Your task to perform on an android device: check google app version Image 0: 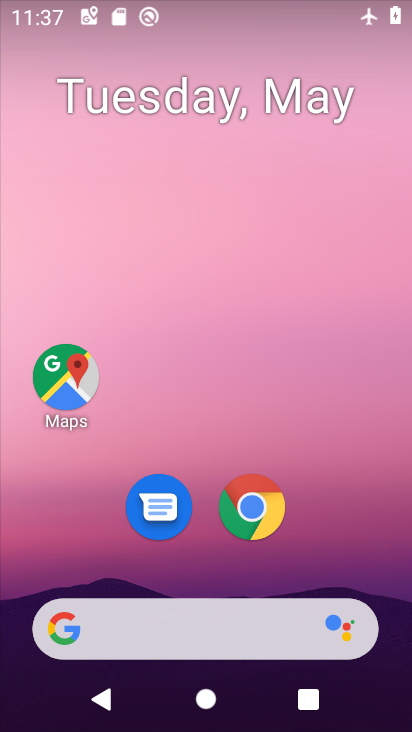
Step 0: drag from (266, 706) to (256, 225)
Your task to perform on an android device: check google app version Image 1: 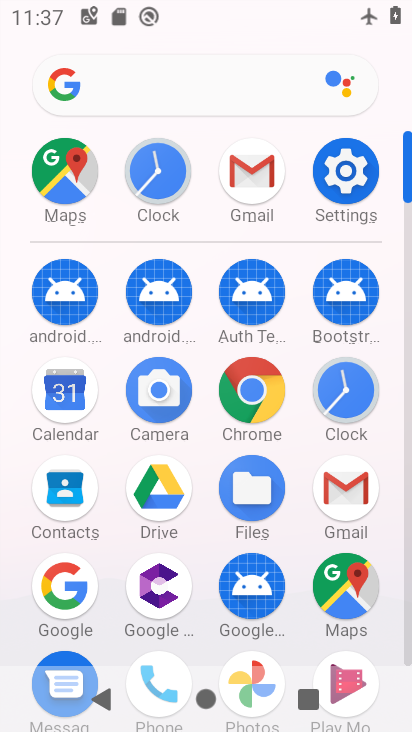
Step 1: click (70, 582)
Your task to perform on an android device: check google app version Image 2: 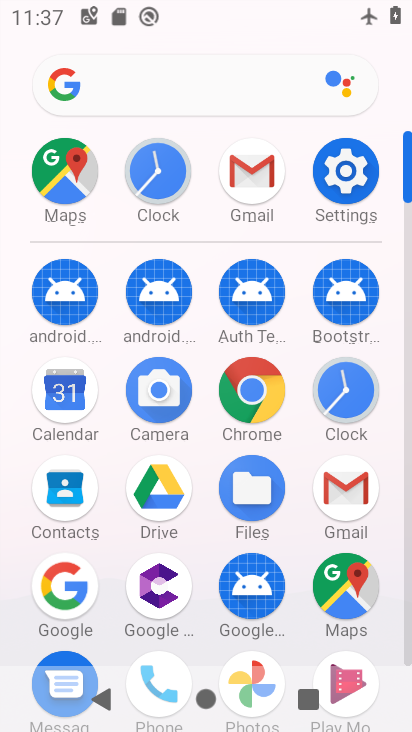
Step 2: click (70, 582)
Your task to perform on an android device: check google app version Image 3: 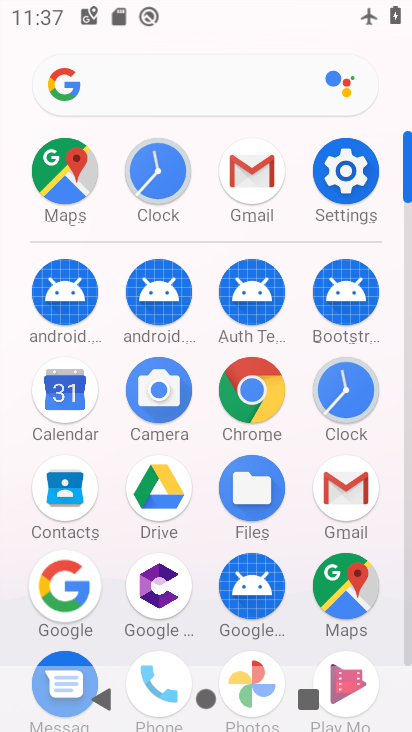
Step 3: click (70, 582)
Your task to perform on an android device: check google app version Image 4: 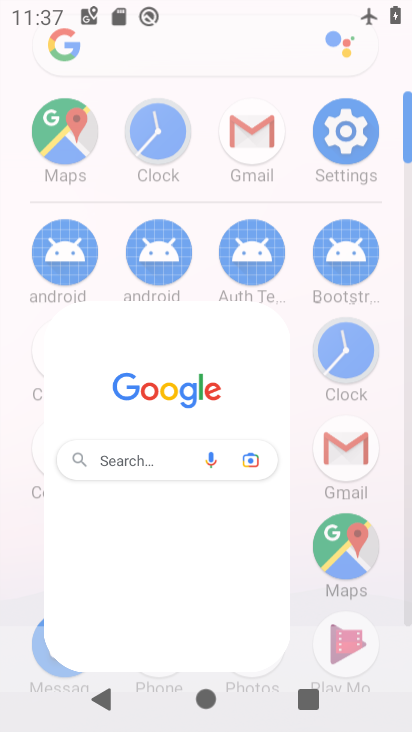
Step 4: click (69, 581)
Your task to perform on an android device: check google app version Image 5: 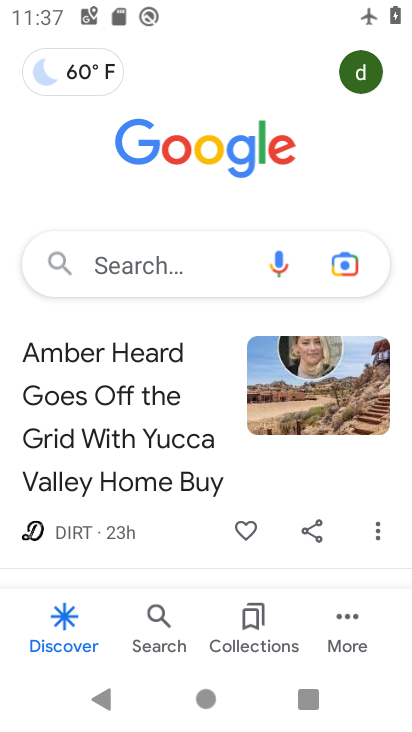
Step 5: click (142, 498)
Your task to perform on an android device: check google app version Image 6: 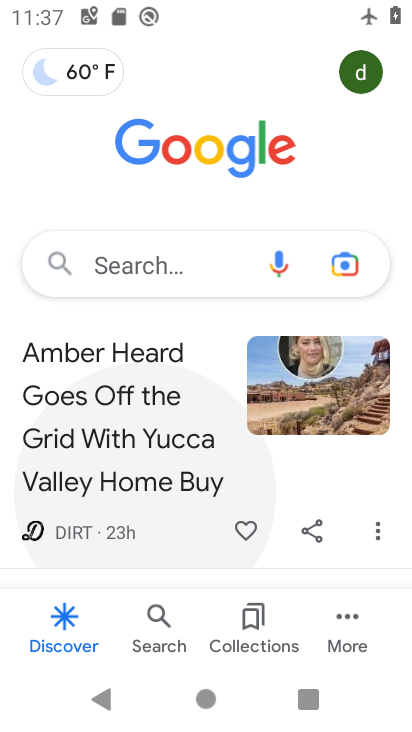
Step 6: click (143, 498)
Your task to perform on an android device: check google app version Image 7: 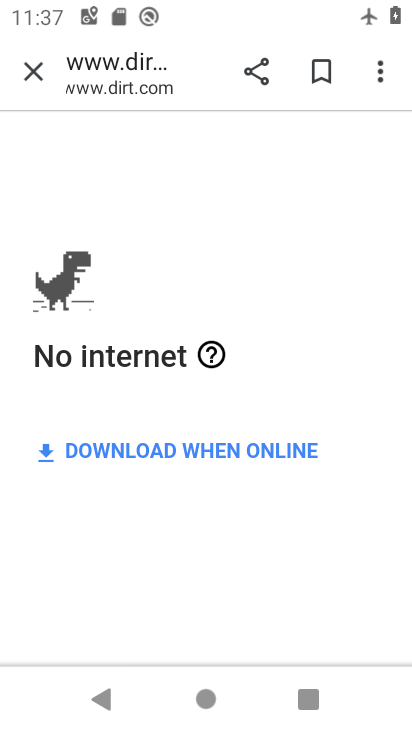
Step 7: click (37, 78)
Your task to perform on an android device: check google app version Image 8: 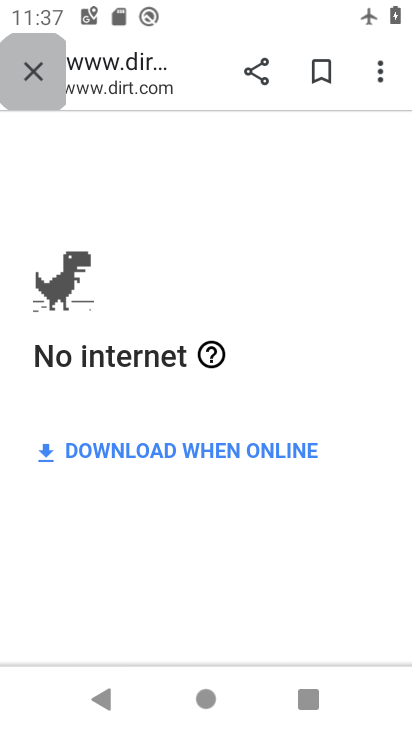
Step 8: click (41, 78)
Your task to perform on an android device: check google app version Image 9: 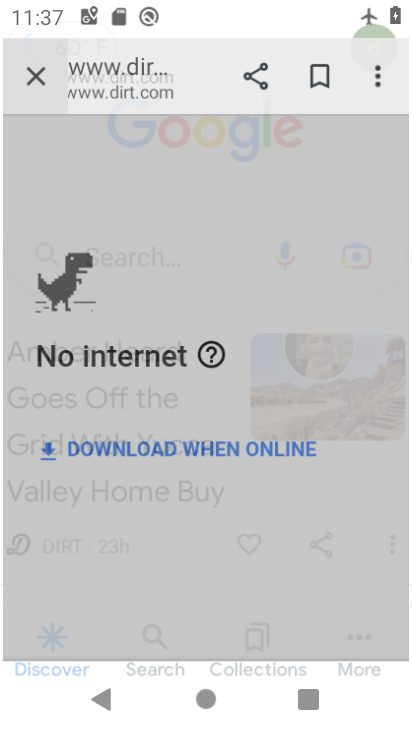
Step 9: click (41, 78)
Your task to perform on an android device: check google app version Image 10: 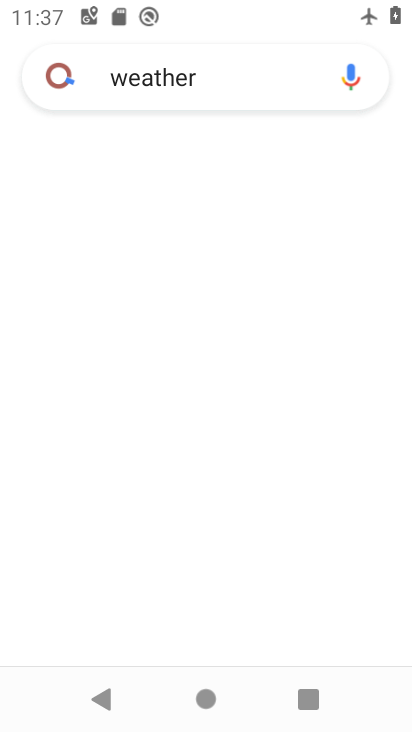
Step 10: click (335, 630)
Your task to perform on an android device: check google app version Image 11: 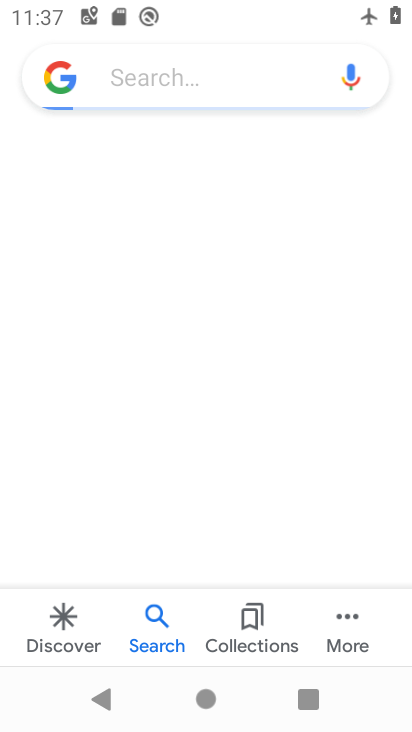
Step 11: click (335, 630)
Your task to perform on an android device: check google app version Image 12: 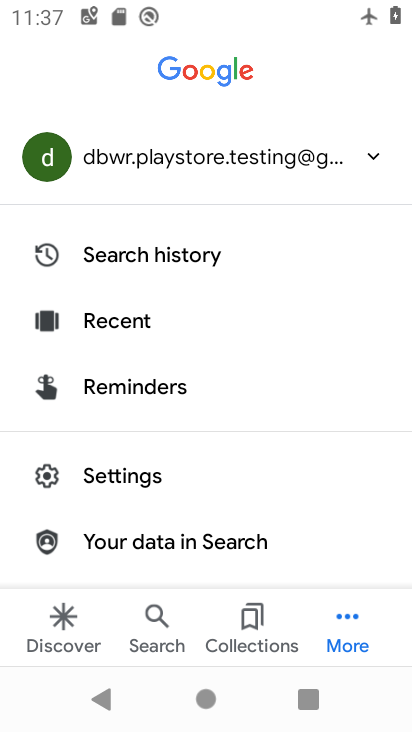
Step 12: click (352, 643)
Your task to perform on an android device: check google app version Image 13: 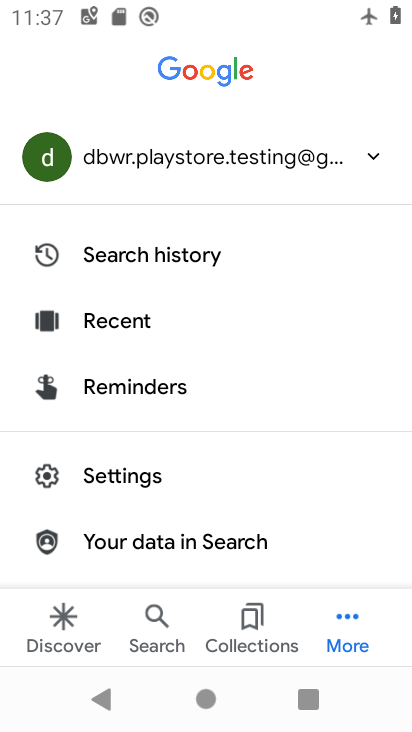
Step 13: click (352, 642)
Your task to perform on an android device: check google app version Image 14: 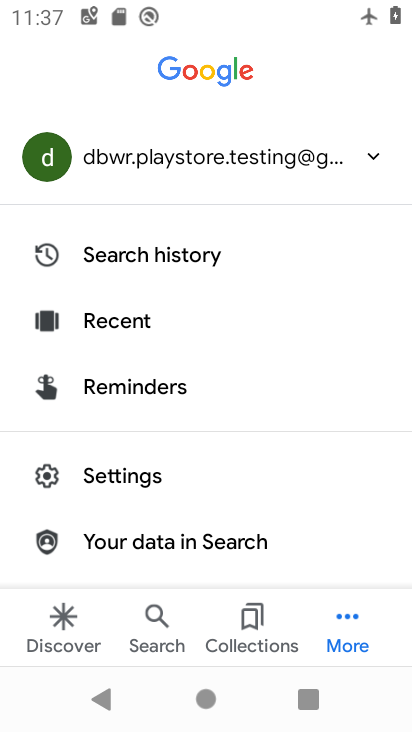
Step 14: click (352, 642)
Your task to perform on an android device: check google app version Image 15: 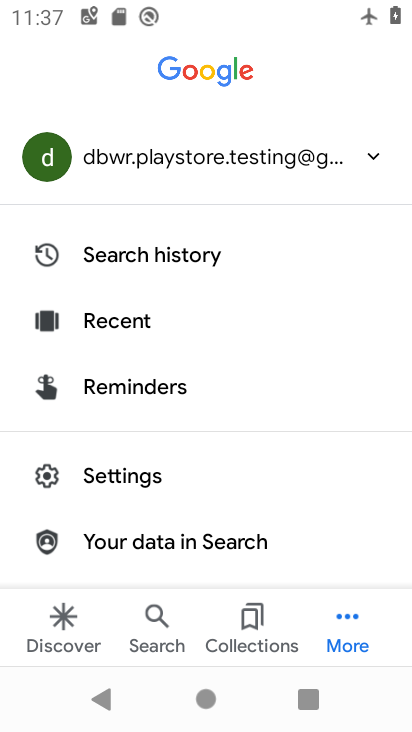
Step 15: click (353, 639)
Your task to perform on an android device: check google app version Image 16: 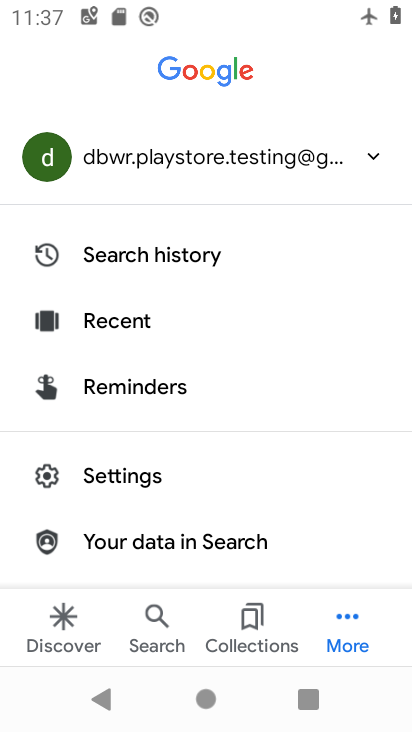
Step 16: click (105, 468)
Your task to perform on an android device: check google app version Image 17: 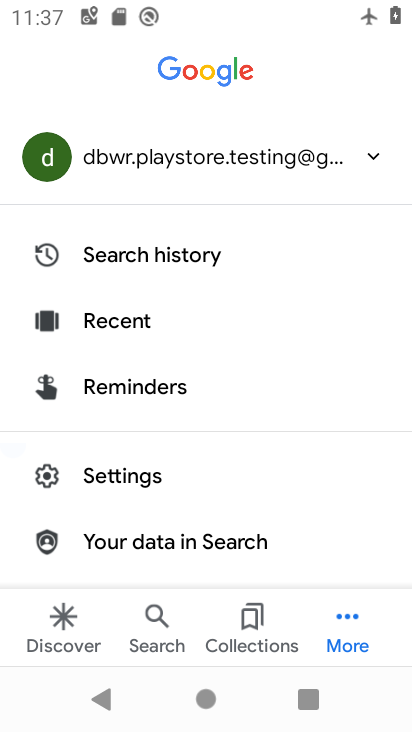
Step 17: click (105, 468)
Your task to perform on an android device: check google app version Image 18: 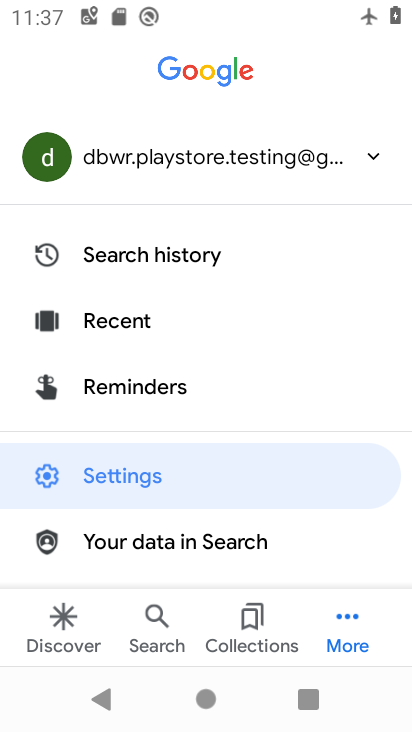
Step 18: click (105, 468)
Your task to perform on an android device: check google app version Image 19: 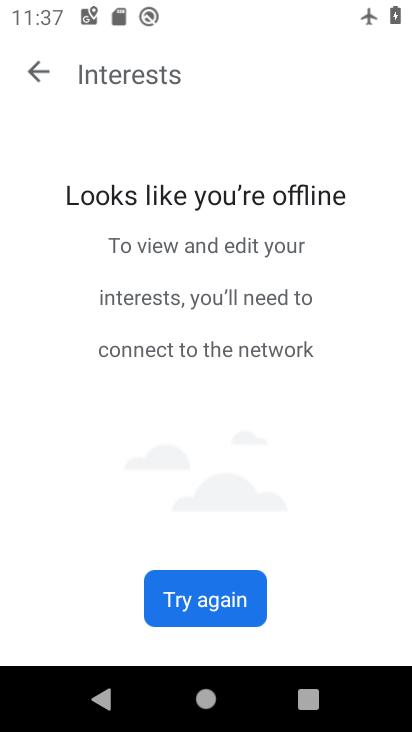
Step 19: click (23, 67)
Your task to perform on an android device: check google app version Image 20: 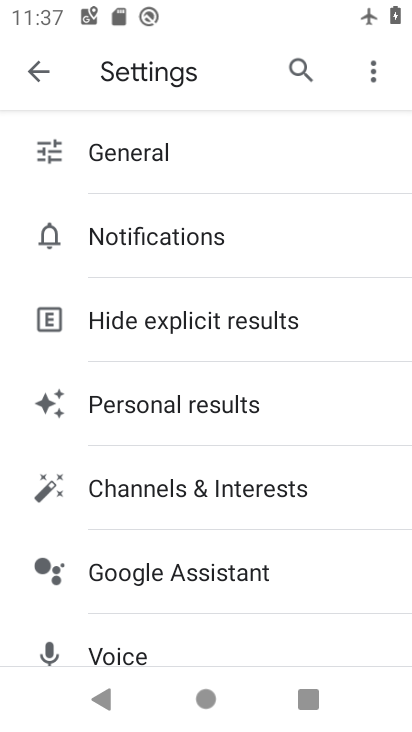
Step 20: drag from (132, 506) to (132, 229)
Your task to perform on an android device: check google app version Image 21: 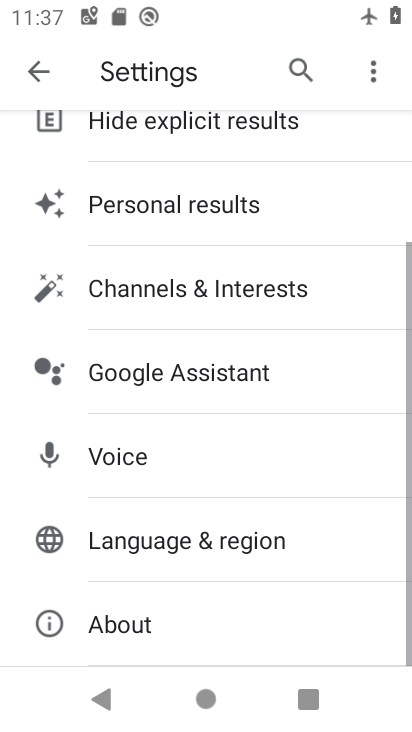
Step 21: drag from (132, 468) to (168, 125)
Your task to perform on an android device: check google app version Image 22: 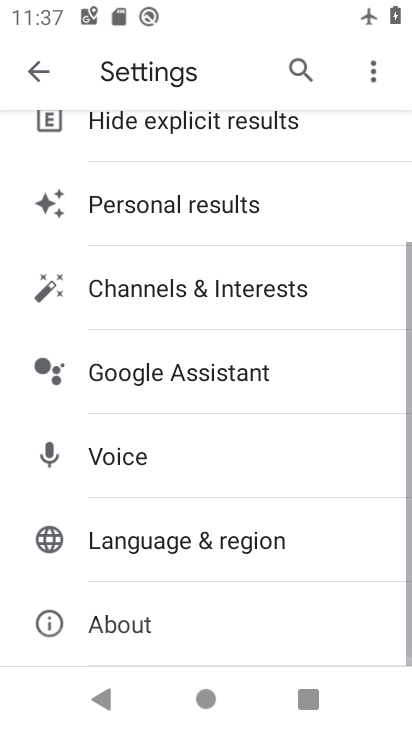
Step 22: drag from (203, 404) to (223, 174)
Your task to perform on an android device: check google app version Image 23: 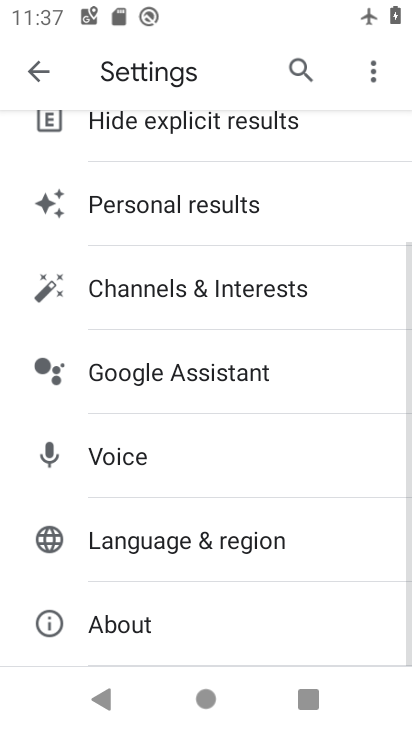
Step 23: click (109, 610)
Your task to perform on an android device: check google app version Image 24: 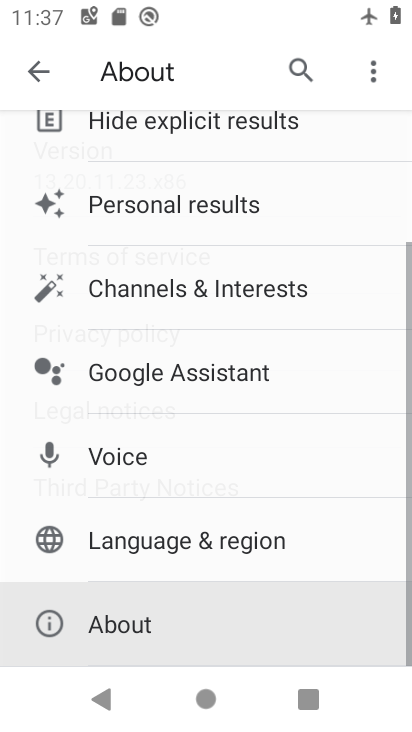
Step 24: click (118, 623)
Your task to perform on an android device: check google app version Image 25: 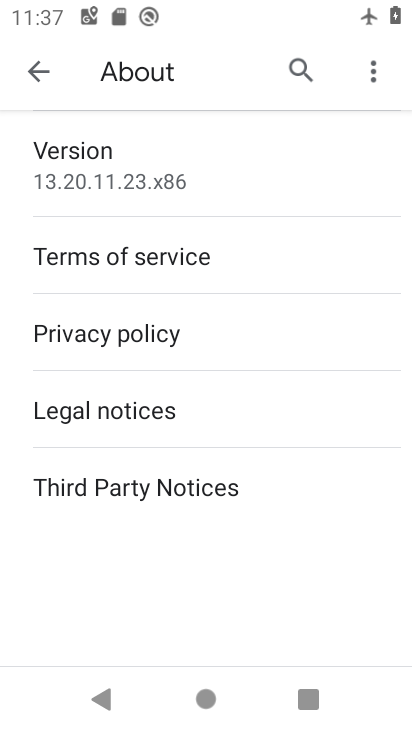
Step 25: task complete